Your task to perform on an android device: Find coffee shops on Maps Image 0: 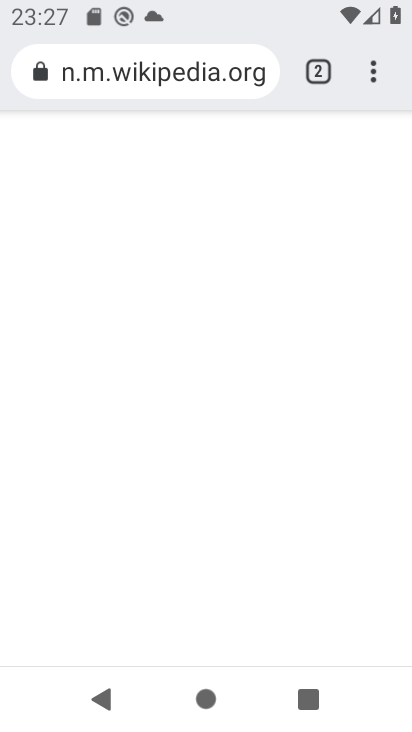
Step 0: press home button
Your task to perform on an android device: Find coffee shops on Maps Image 1: 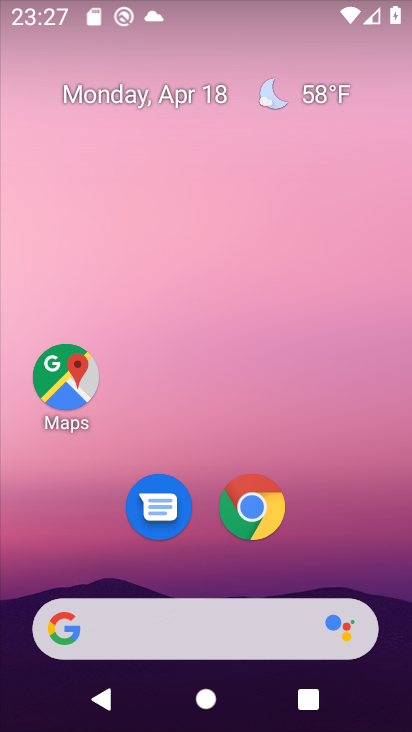
Step 1: click (69, 381)
Your task to perform on an android device: Find coffee shops on Maps Image 2: 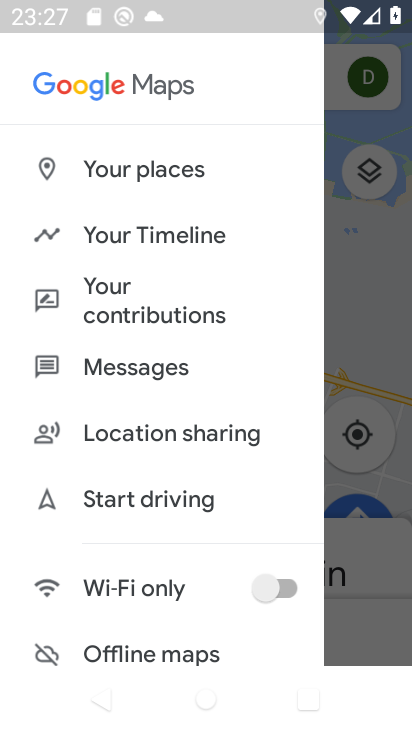
Step 2: click (392, 281)
Your task to perform on an android device: Find coffee shops on Maps Image 3: 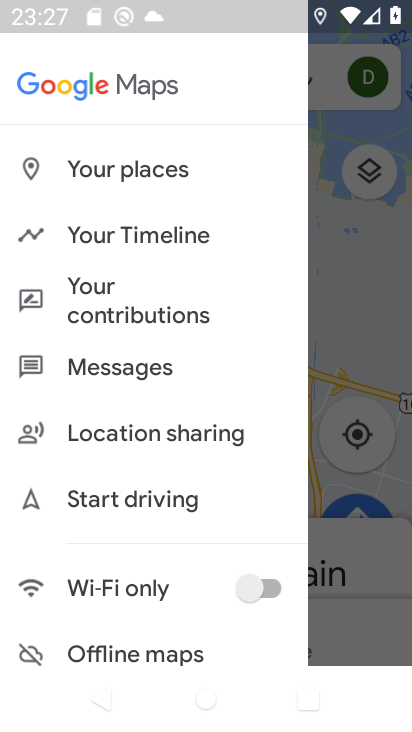
Step 3: click (375, 343)
Your task to perform on an android device: Find coffee shops on Maps Image 4: 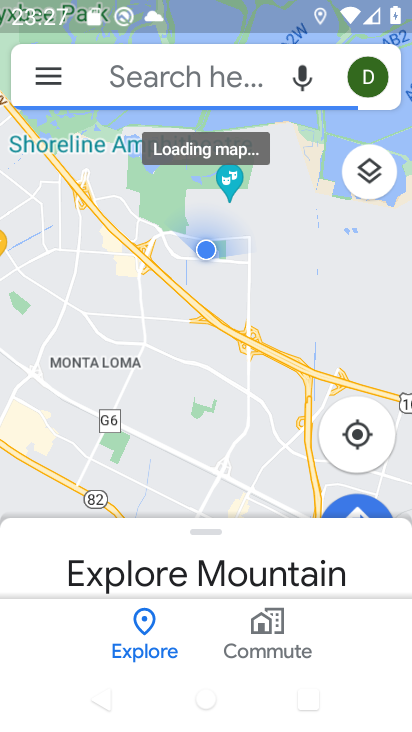
Step 4: click (202, 78)
Your task to perform on an android device: Find coffee shops on Maps Image 5: 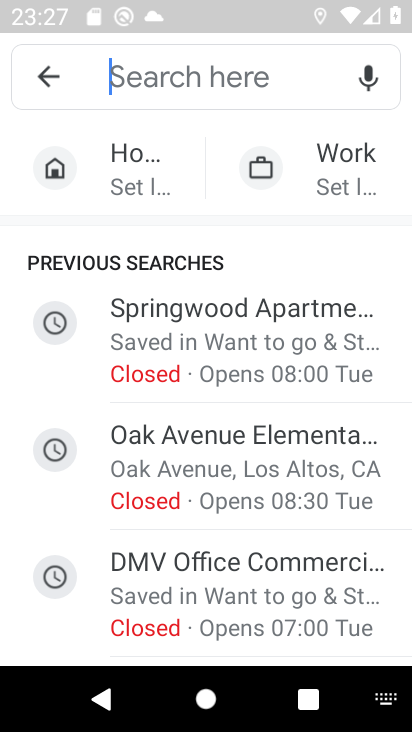
Step 5: type "coffee shops"
Your task to perform on an android device: Find coffee shops on Maps Image 6: 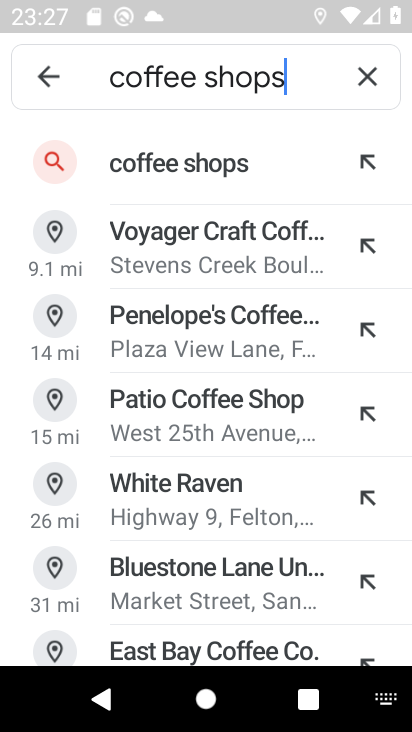
Step 6: click (176, 156)
Your task to perform on an android device: Find coffee shops on Maps Image 7: 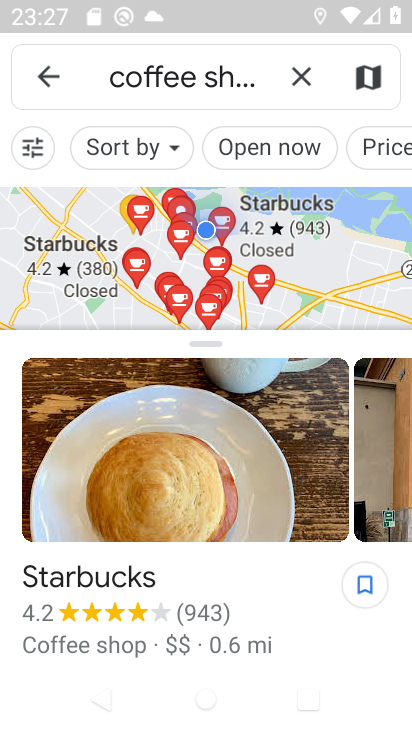
Step 7: task complete